Your task to perform on an android device: Open the calendar and show me this week's events? Image 0: 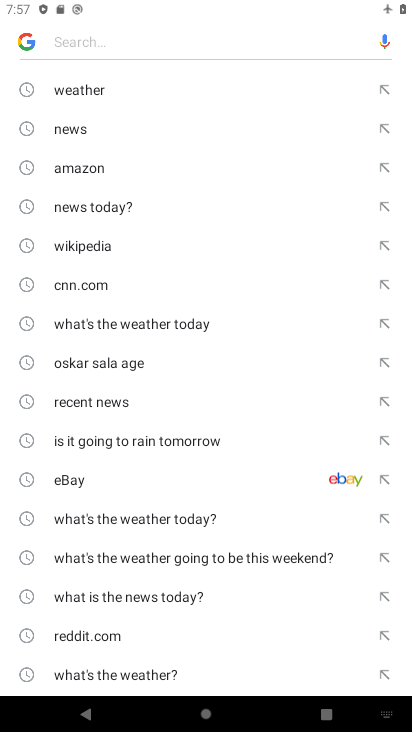
Step 0: press home button
Your task to perform on an android device: Open the calendar and show me this week's events? Image 1: 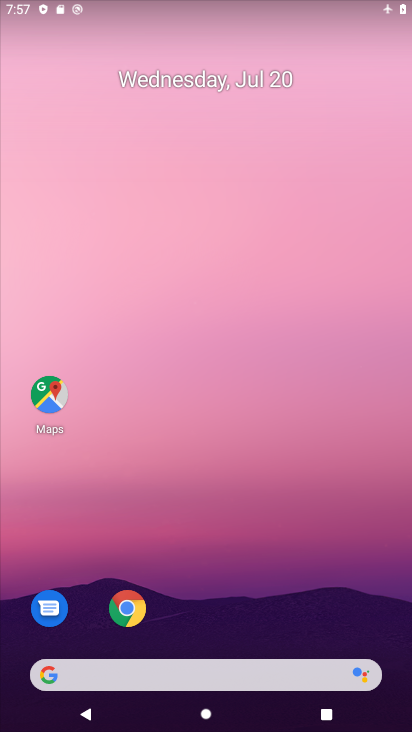
Step 1: drag from (250, 623) to (291, 9)
Your task to perform on an android device: Open the calendar and show me this week's events? Image 2: 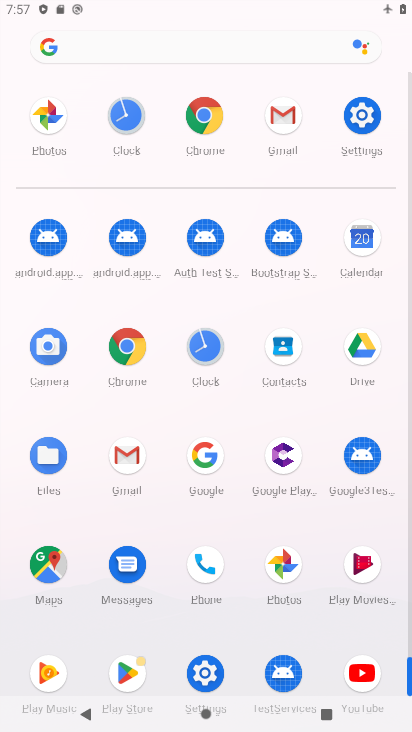
Step 2: click (356, 302)
Your task to perform on an android device: Open the calendar and show me this week's events? Image 3: 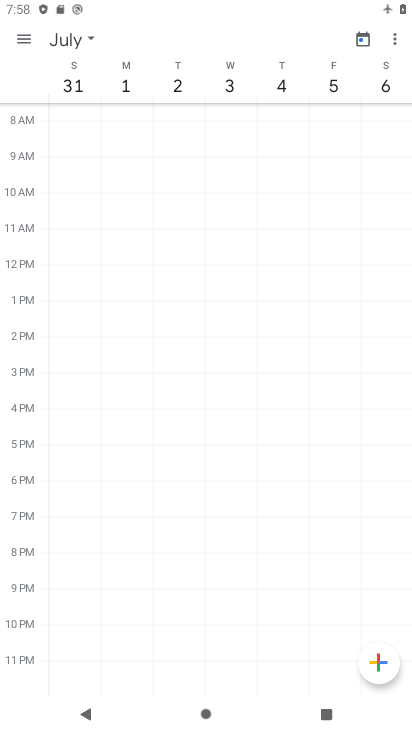
Step 3: drag from (112, 86) to (407, 68)
Your task to perform on an android device: Open the calendar and show me this week's events? Image 4: 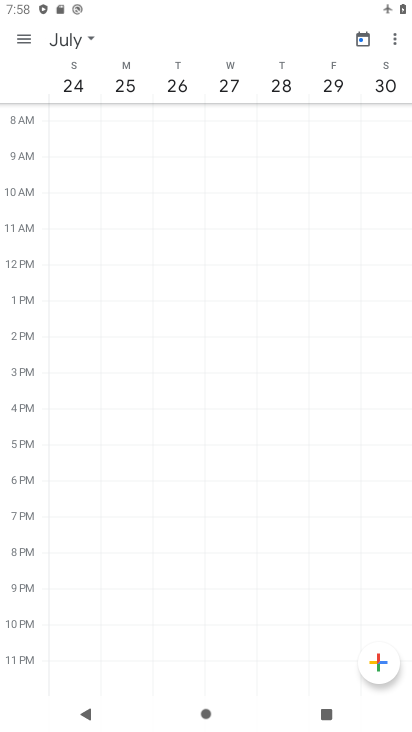
Step 4: drag from (115, 94) to (395, 81)
Your task to perform on an android device: Open the calendar and show me this week's events? Image 5: 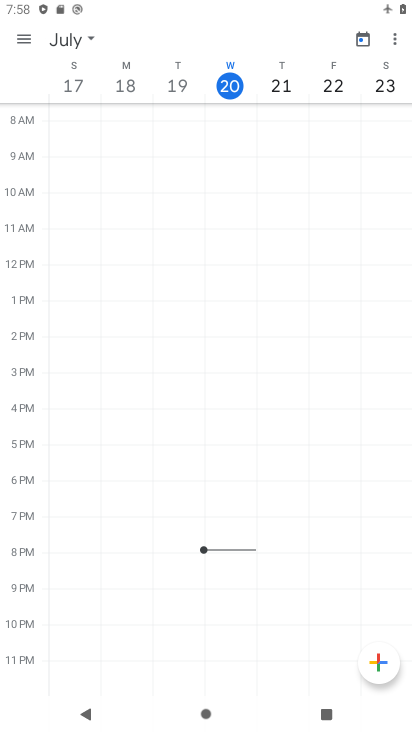
Step 5: click (18, 27)
Your task to perform on an android device: Open the calendar and show me this week's events? Image 6: 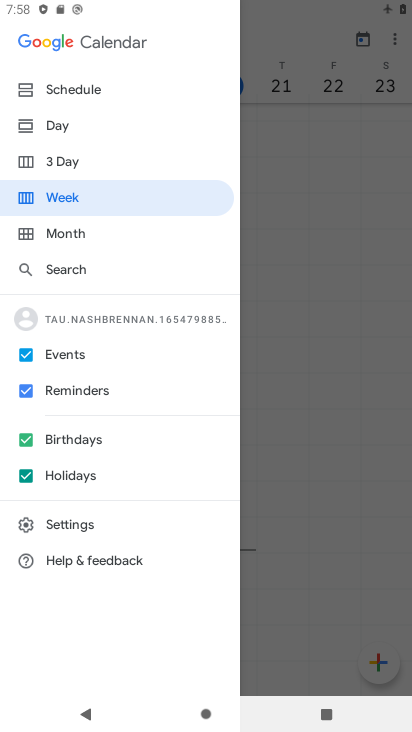
Step 6: click (70, 388)
Your task to perform on an android device: Open the calendar and show me this week's events? Image 7: 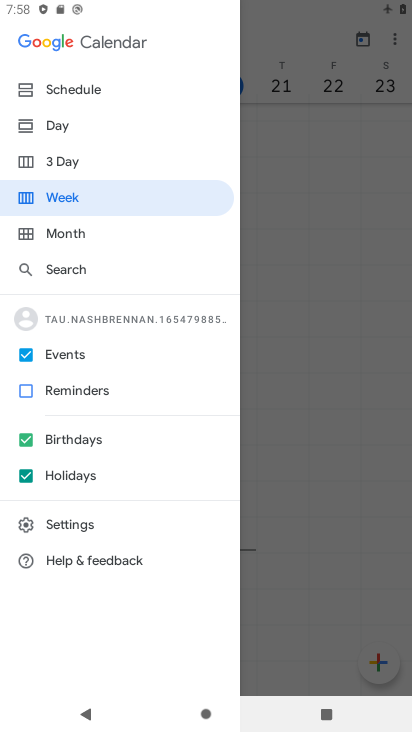
Step 7: click (74, 438)
Your task to perform on an android device: Open the calendar and show me this week's events? Image 8: 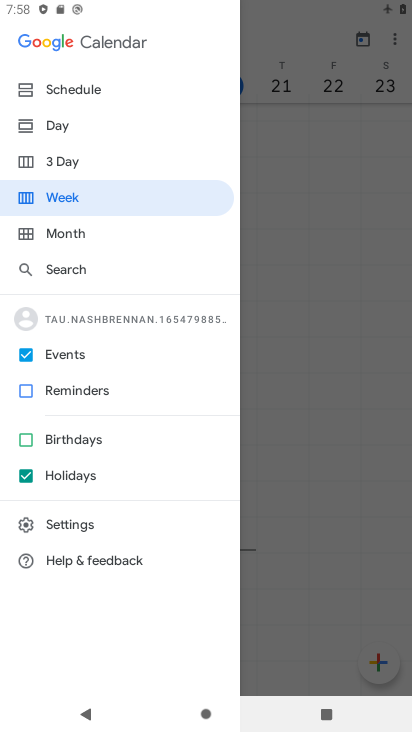
Step 8: click (67, 476)
Your task to perform on an android device: Open the calendar and show me this week's events? Image 9: 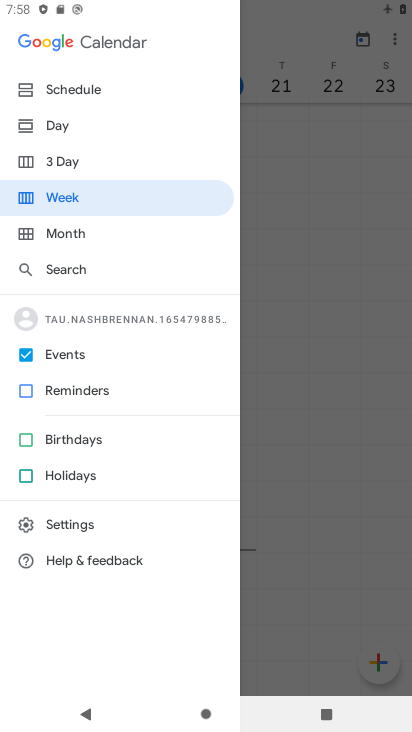
Step 9: click (73, 200)
Your task to perform on an android device: Open the calendar and show me this week's events? Image 10: 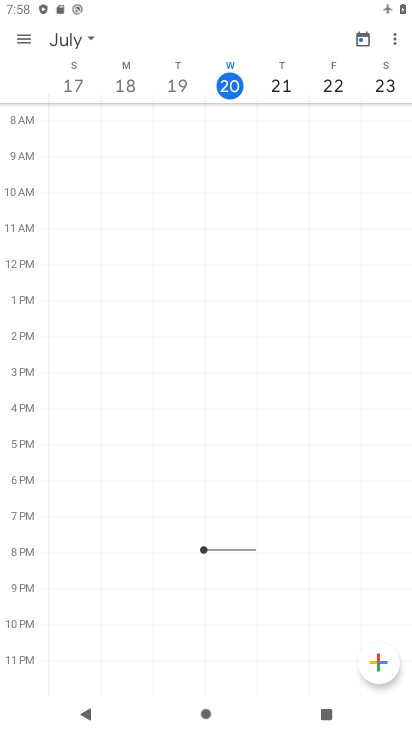
Step 10: task complete